Your task to perform on an android device: Open Chrome and go to settings Image 0: 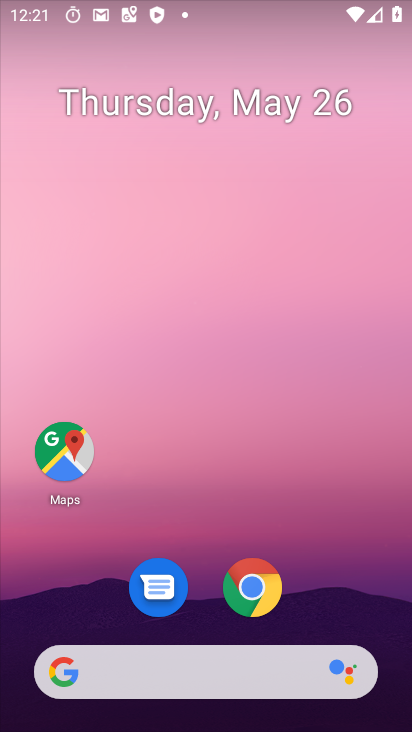
Step 0: drag from (238, 686) to (134, 2)
Your task to perform on an android device: Open Chrome and go to settings Image 1: 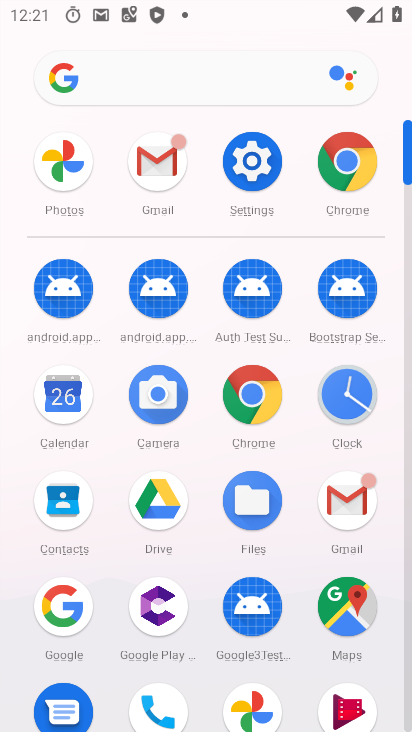
Step 1: click (365, 176)
Your task to perform on an android device: Open Chrome and go to settings Image 2: 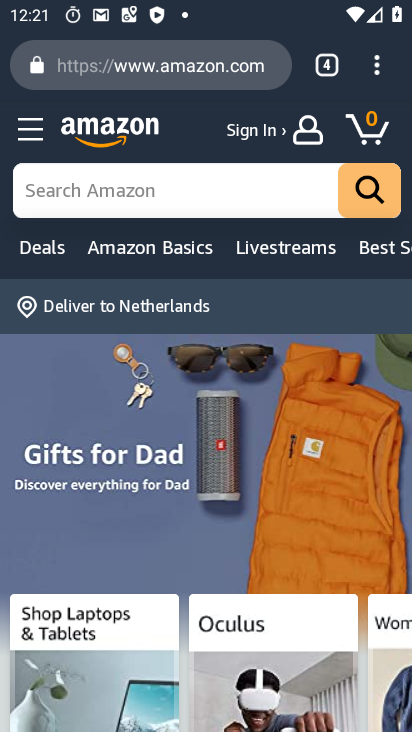
Step 2: click (369, 64)
Your task to perform on an android device: Open Chrome and go to settings Image 3: 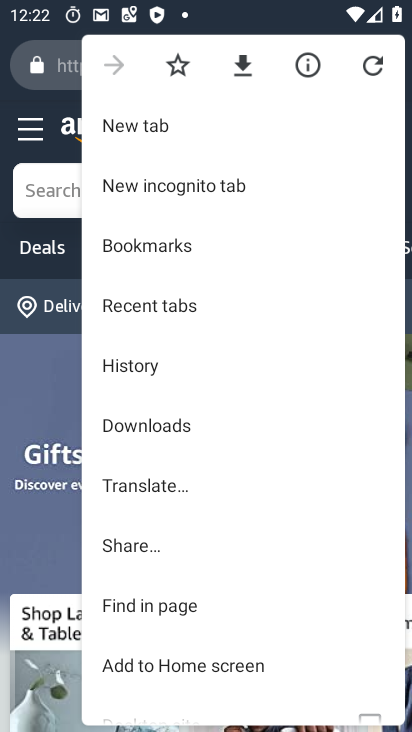
Step 3: drag from (129, 643) to (135, 277)
Your task to perform on an android device: Open Chrome and go to settings Image 4: 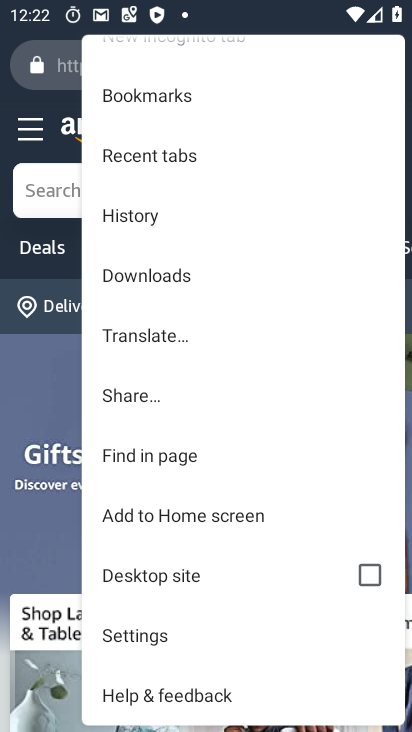
Step 4: click (162, 628)
Your task to perform on an android device: Open Chrome and go to settings Image 5: 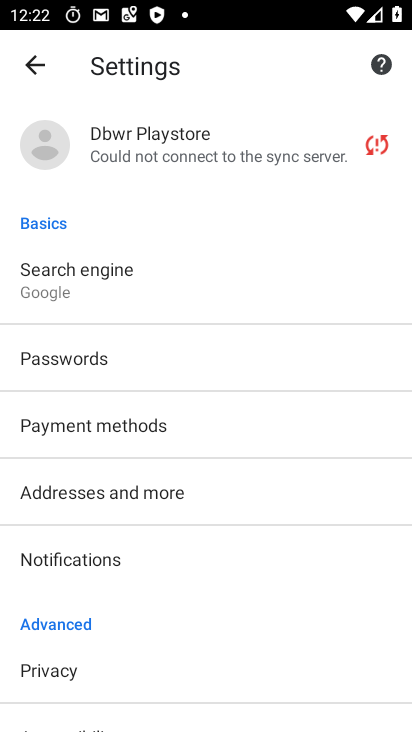
Step 5: task complete